Your task to perform on an android device: Open the calendar and show me this week's events Image 0: 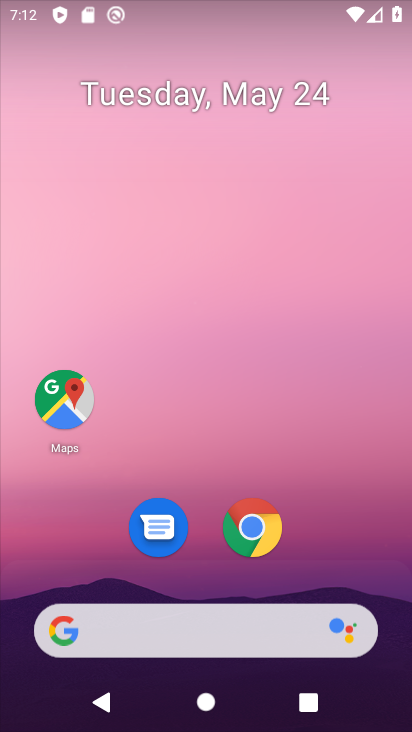
Step 0: drag from (302, 397) to (303, 232)
Your task to perform on an android device: Open the calendar and show me this week's events Image 1: 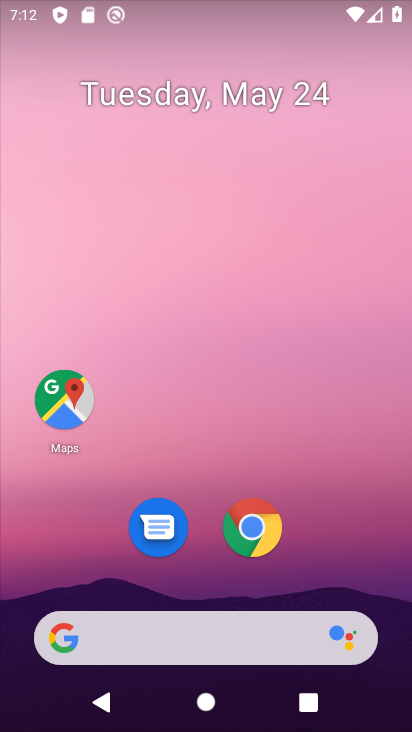
Step 1: drag from (218, 484) to (256, 181)
Your task to perform on an android device: Open the calendar and show me this week's events Image 2: 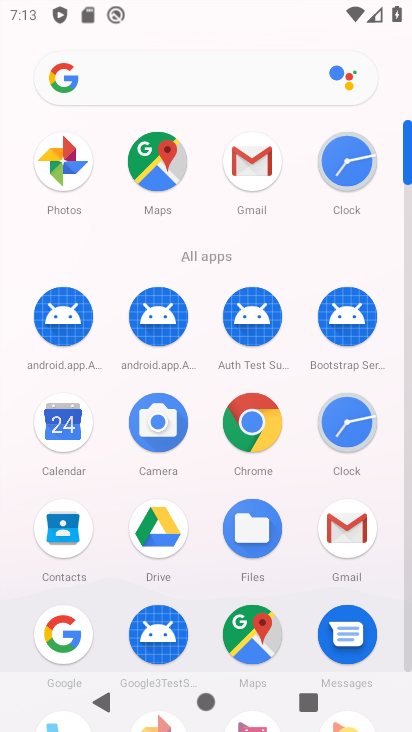
Step 2: drag from (276, 532) to (345, 182)
Your task to perform on an android device: Open the calendar and show me this week's events Image 3: 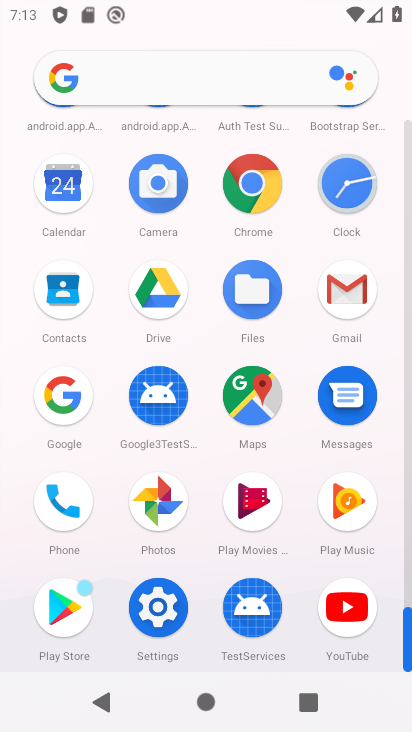
Step 3: click (63, 178)
Your task to perform on an android device: Open the calendar and show me this week's events Image 4: 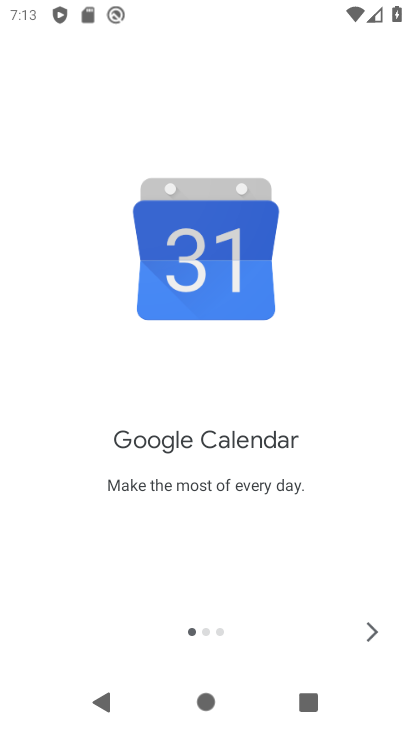
Step 4: click (348, 636)
Your task to perform on an android device: Open the calendar and show me this week's events Image 5: 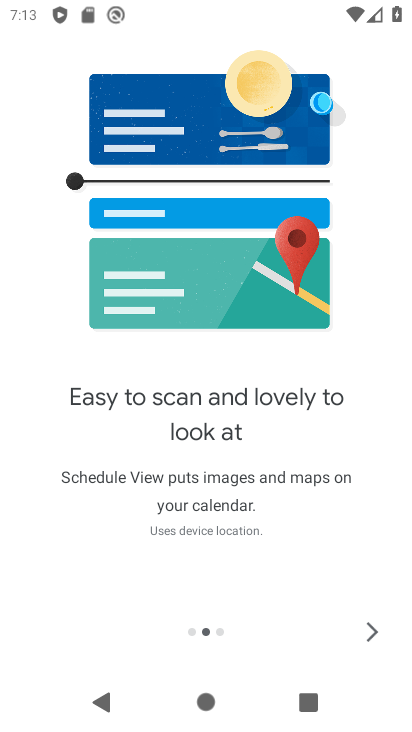
Step 5: click (347, 635)
Your task to perform on an android device: Open the calendar and show me this week's events Image 6: 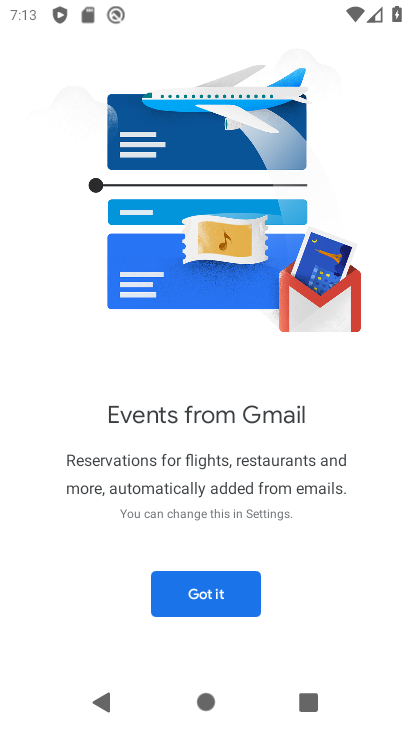
Step 6: click (218, 588)
Your task to perform on an android device: Open the calendar and show me this week's events Image 7: 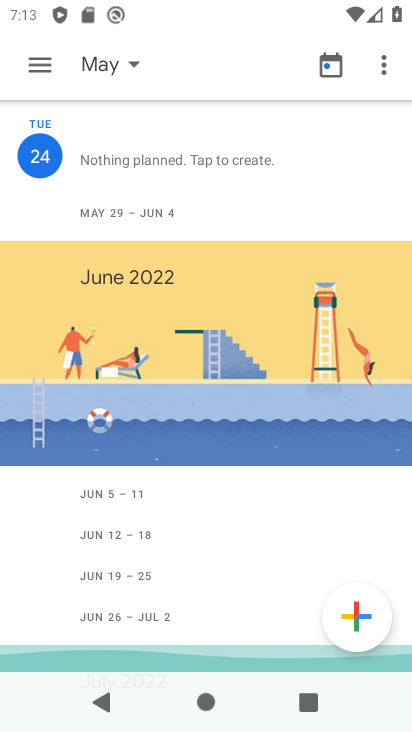
Step 7: click (36, 62)
Your task to perform on an android device: Open the calendar and show me this week's events Image 8: 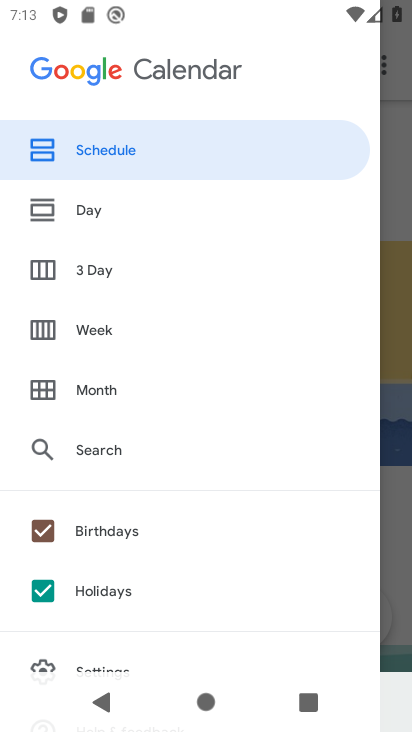
Step 8: click (101, 341)
Your task to perform on an android device: Open the calendar and show me this week's events Image 9: 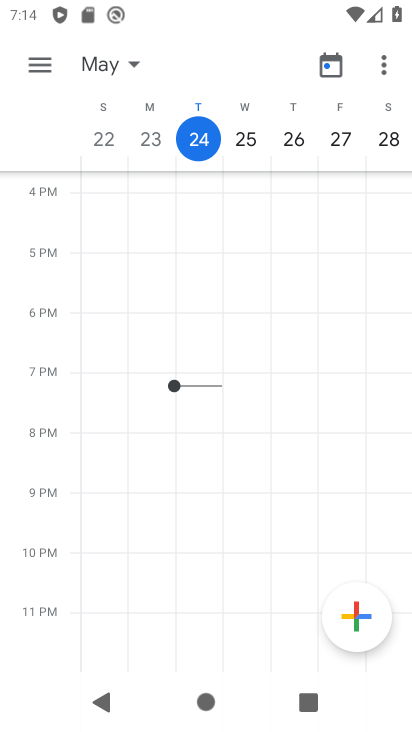
Step 9: task complete